Your task to perform on an android device: open app "Paramount+ | Peak Streaming" (install if not already installed) Image 0: 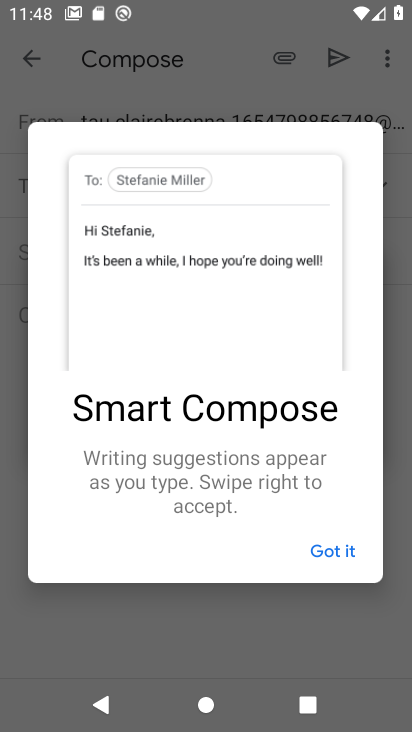
Step 0: press home button
Your task to perform on an android device: open app "Paramount+ | Peak Streaming" (install if not already installed) Image 1: 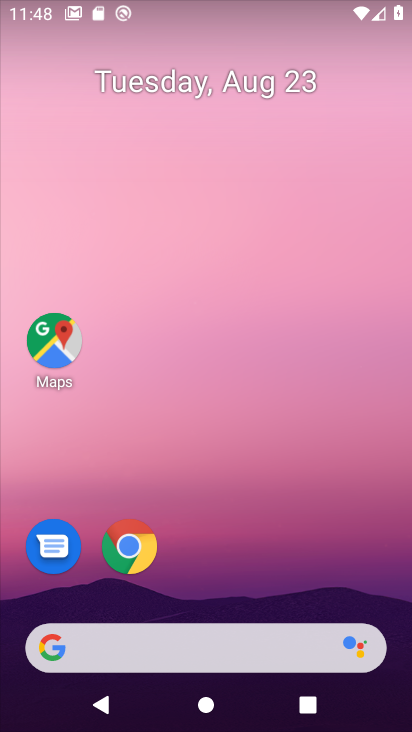
Step 1: drag from (203, 615) to (184, 193)
Your task to perform on an android device: open app "Paramount+ | Peak Streaming" (install if not already installed) Image 2: 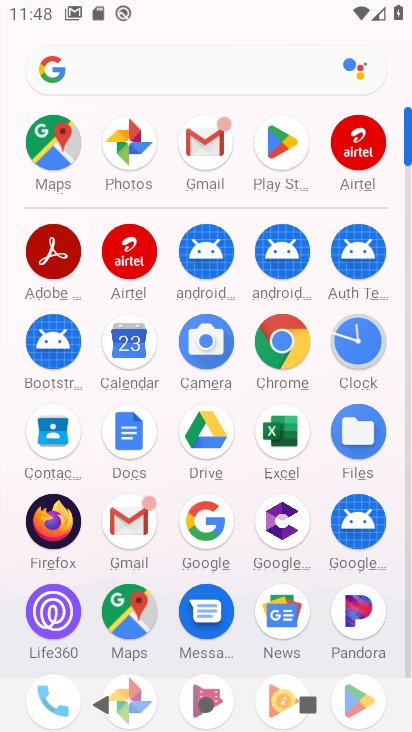
Step 2: click (263, 132)
Your task to perform on an android device: open app "Paramount+ | Peak Streaming" (install if not already installed) Image 3: 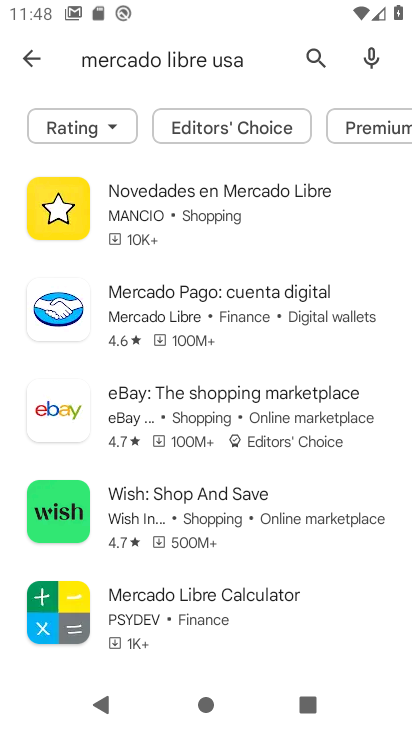
Step 3: click (39, 63)
Your task to perform on an android device: open app "Paramount+ | Peak Streaming" (install if not already installed) Image 4: 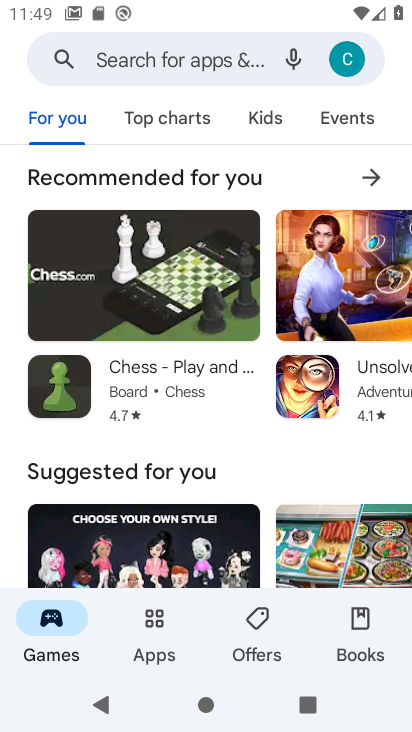
Step 4: click (207, 56)
Your task to perform on an android device: open app "Paramount+ | Peak Streaming" (install if not already installed) Image 5: 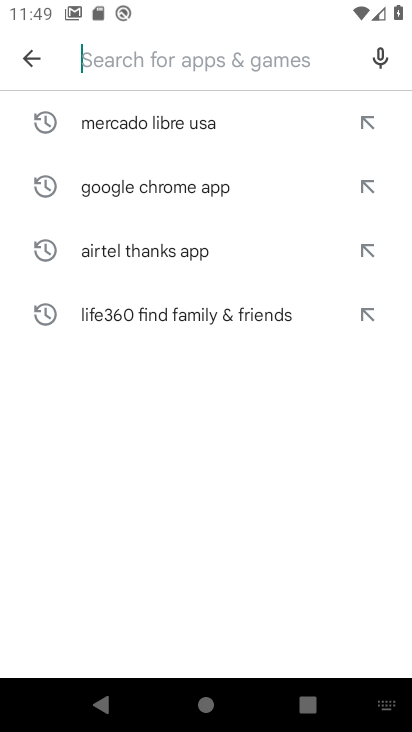
Step 5: type "Paramount+  "
Your task to perform on an android device: open app "Paramount+ | Peak Streaming" (install if not already installed) Image 6: 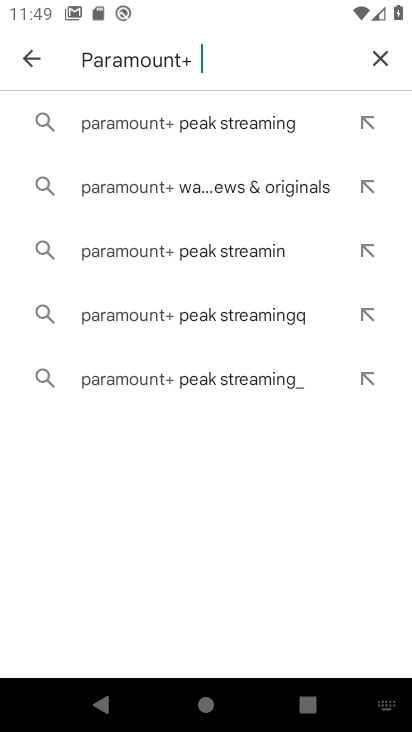
Step 6: click (112, 120)
Your task to perform on an android device: open app "Paramount+ | Peak Streaming" (install if not already installed) Image 7: 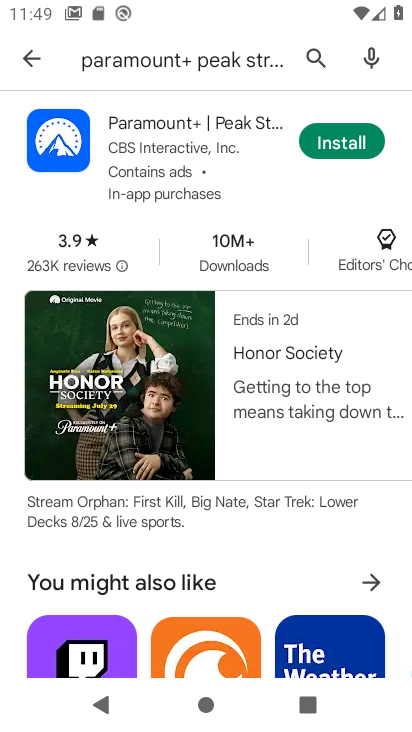
Step 7: click (359, 136)
Your task to perform on an android device: open app "Paramount+ | Peak Streaming" (install if not already installed) Image 8: 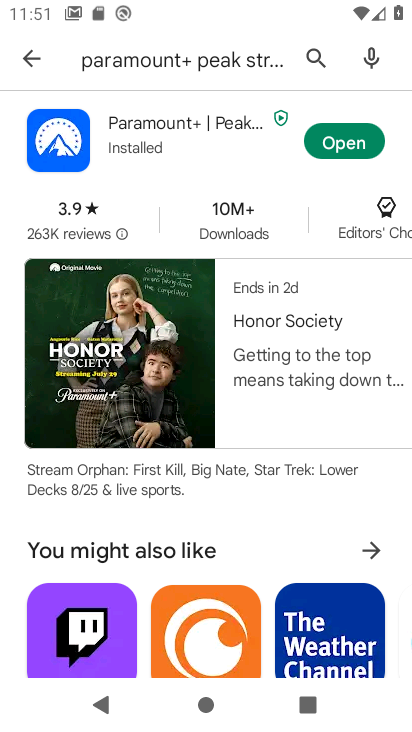
Step 8: task complete